Your task to perform on an android device: turn off notifications in google photos Image 0: 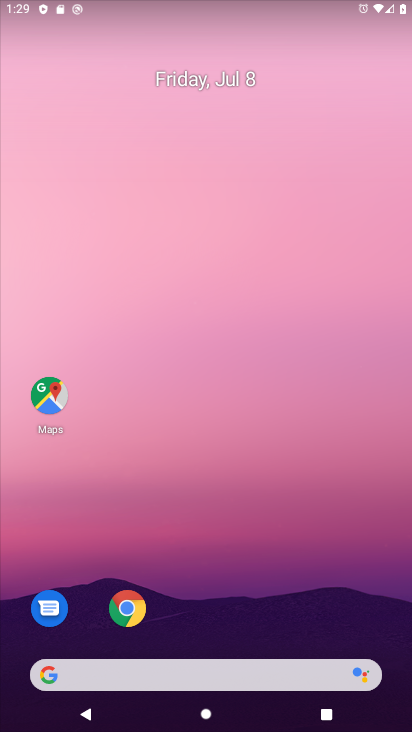
Step 0: drag from (185, 636) to (266, 50)
Your task to perform on an android device: turn off notifications in google photos Image 1: 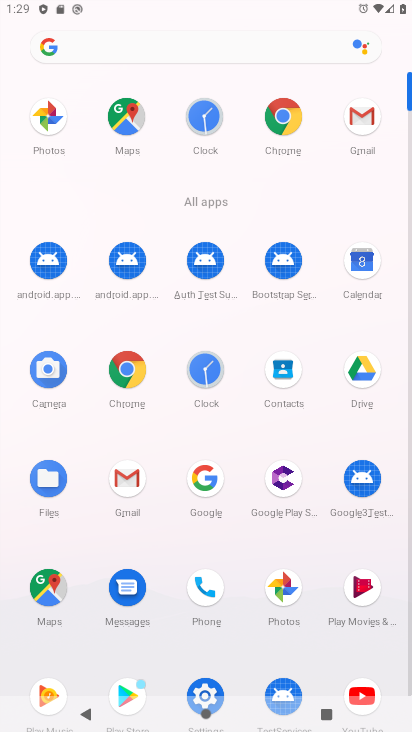
Step 1: click (42, 134)
Your task to perform on an android device: turn off notifications in google photos Image 2: 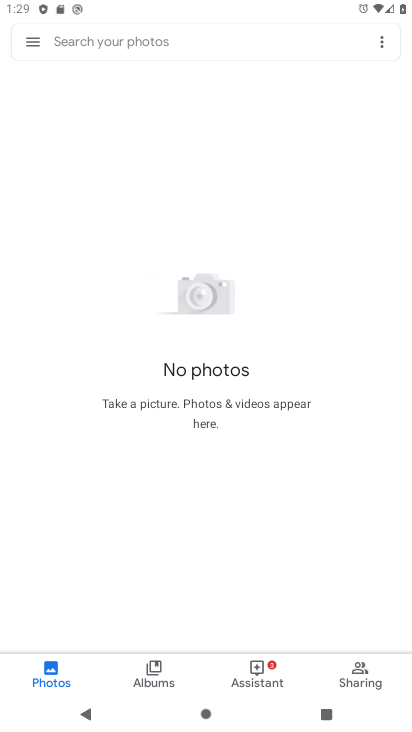
Step 2: click (38, 47)
Your task to perform on an android device: turn off notifications in google photos Image 3: 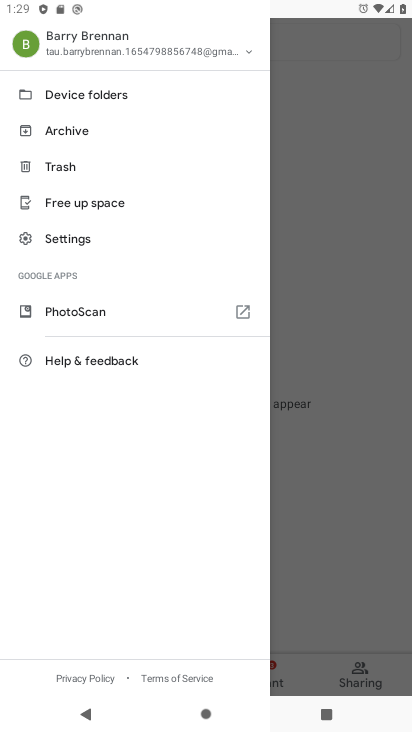
Step 3: click (93, 239)
Your task to perform on an android device: turn off notifications in google photos Image 4: 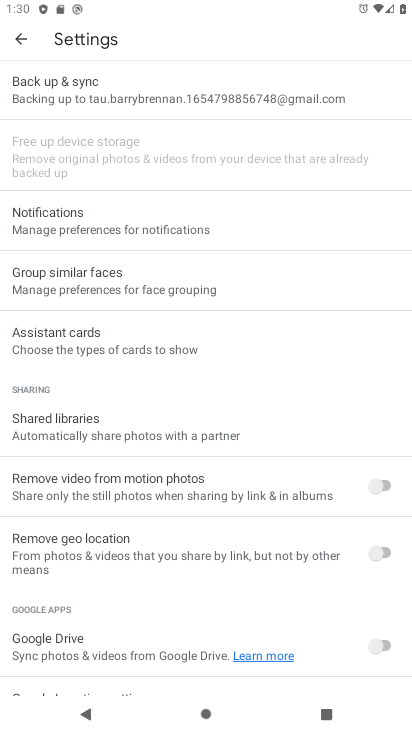
Step 4: click (124, 235)
Your task to perform on an android device: turn off notifications in google photos Image 5: 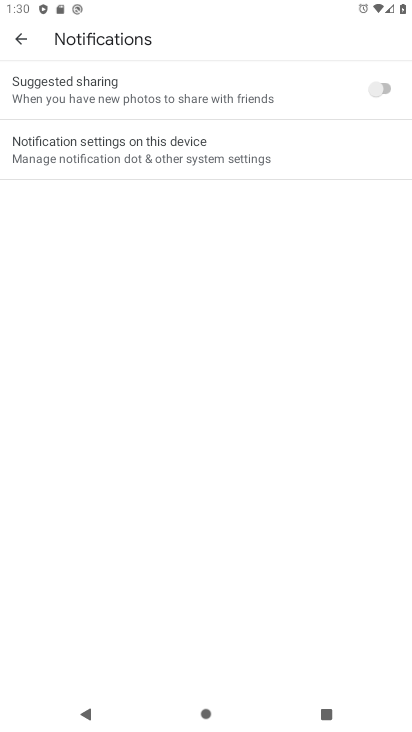
Step 5: click (227, 143)
Your task to perform on an android device: turn off notifications in google photos Image 6: 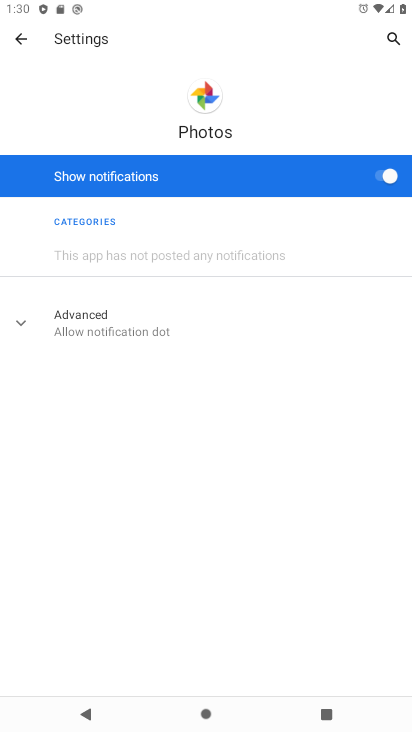
Step 6: click (378, 174)
Your task to perform on an android device: turn off notifications in google photos Image 7: 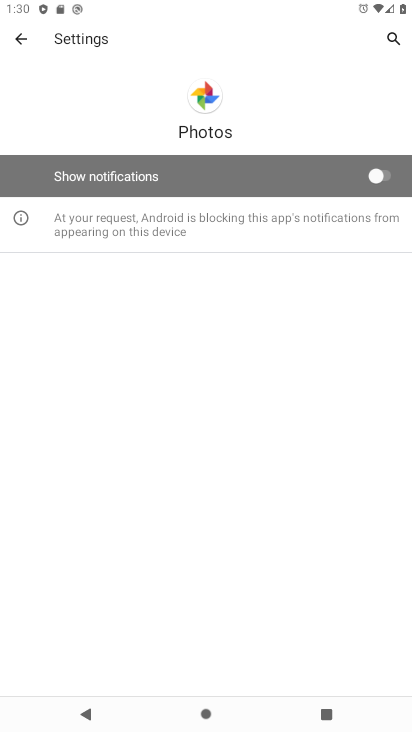
Step 7: task complete